Your task to perform on an android device: Go to Maps Image 0: 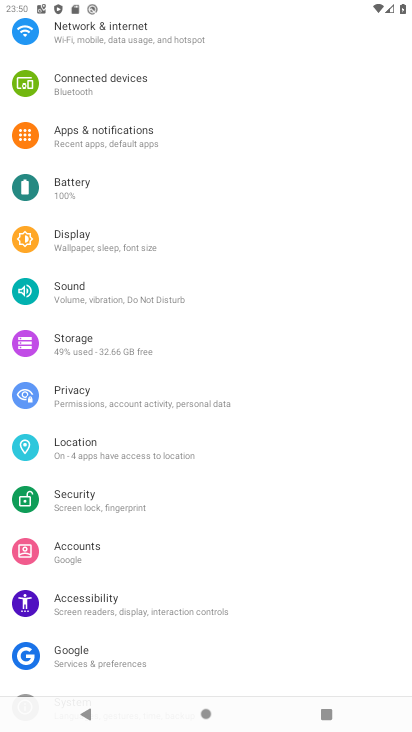
Step 0: press home button
Your task to perform on an android device: Go to Maps Image 1: 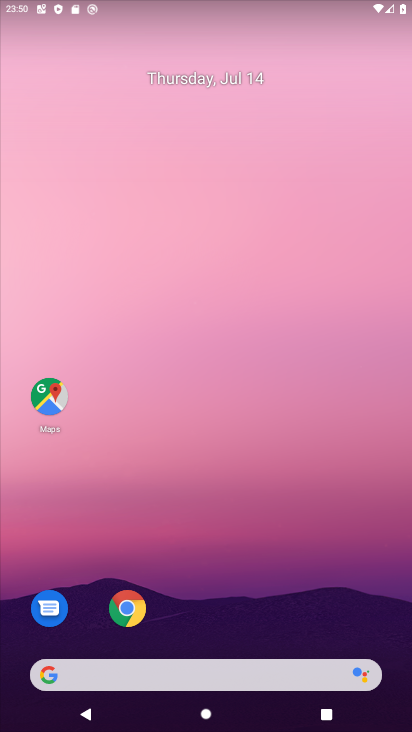
Step 1: click (41, 400)
Your task to perform on an android device: Go to Maps Image 2: 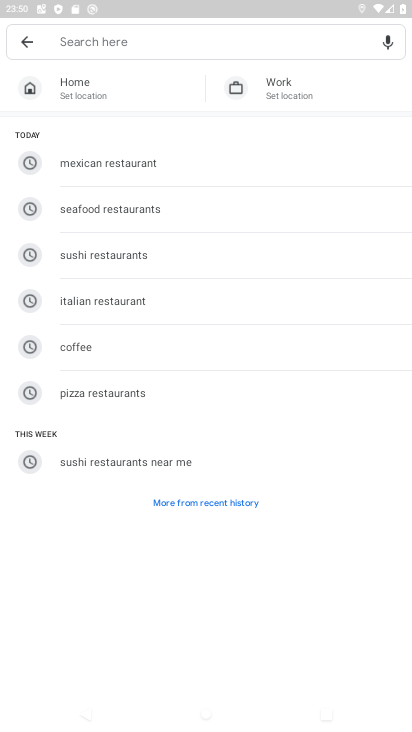
Step 2: click (19, 35)
Your task to perform on an android device: Go to Maps Image 3: 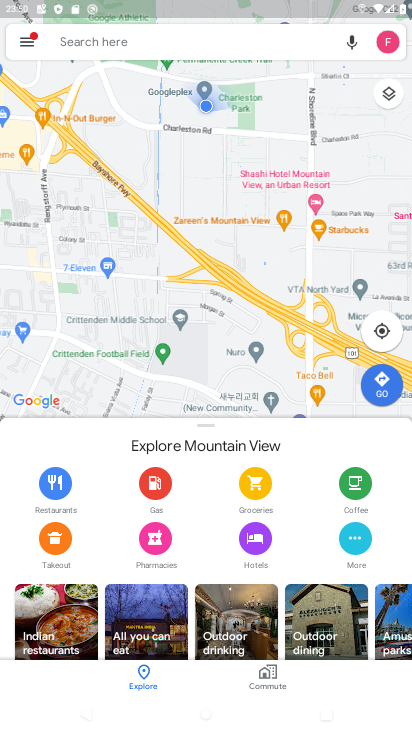
Step 3: click (81, 45)
Your task to perform on an android device: Go to Maps Image 4: 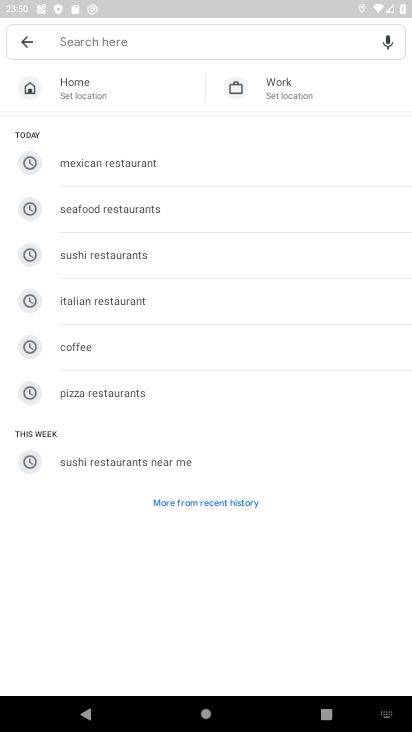
Step 4: task complete